Your task to perform on an android device: change the clock display to show seconds Image 0: 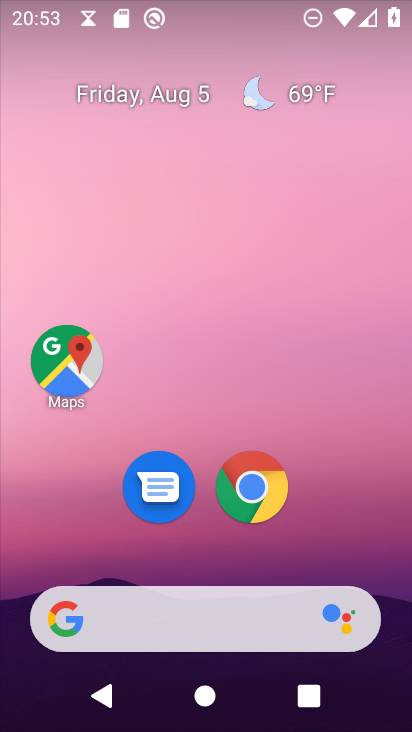
Step 0: drag from (233, 630) to (213, 65)
Your task to perform on an android device: change the clock display to show seconds Image 1: 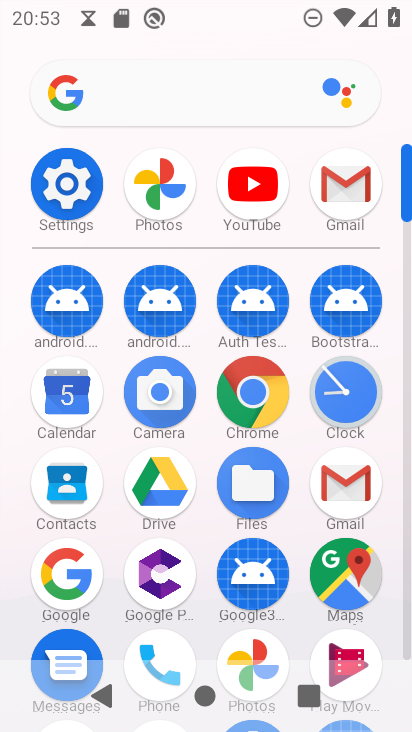
Step 1: click (347, 406)
Your task to perform on an android device: change the clock display to show seconds Image 2: 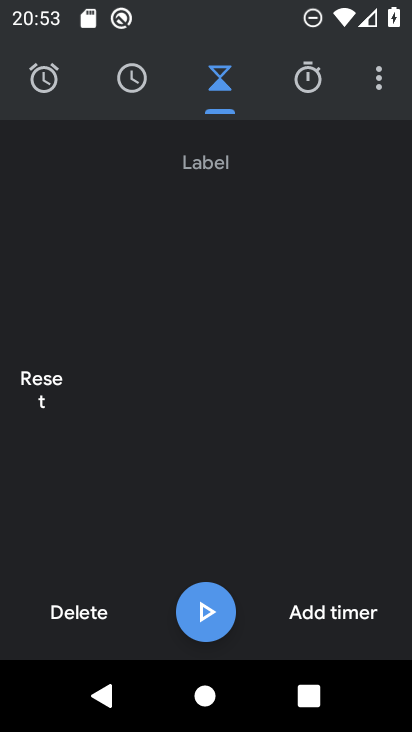
Step 2: click (380, 83)
Your task to perform on an android device: change the clock display to show seconds Image 3: 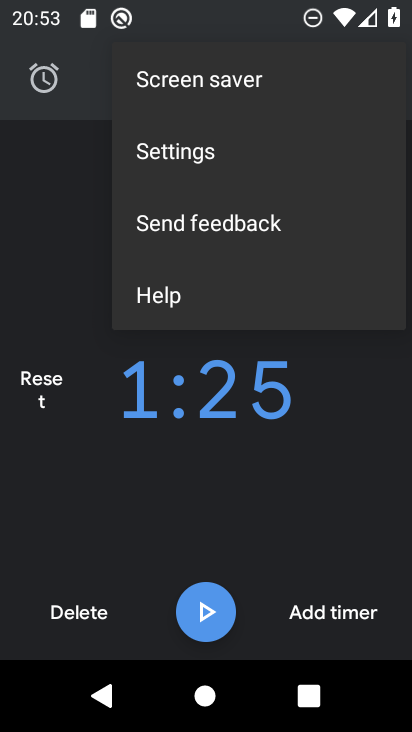
Step 3: click (190, 157)
Your task to perform on an android device: change the clock display to show seconds Image 4: 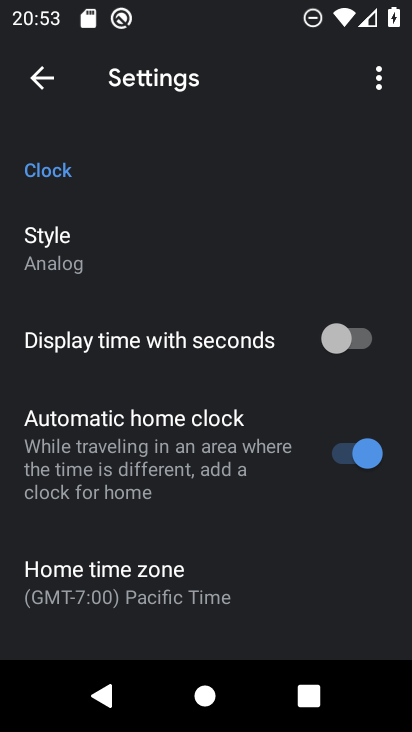
Step 4: click (356, 336)
Your task to perform on an android device: change the clock display to show seconds Image 5: 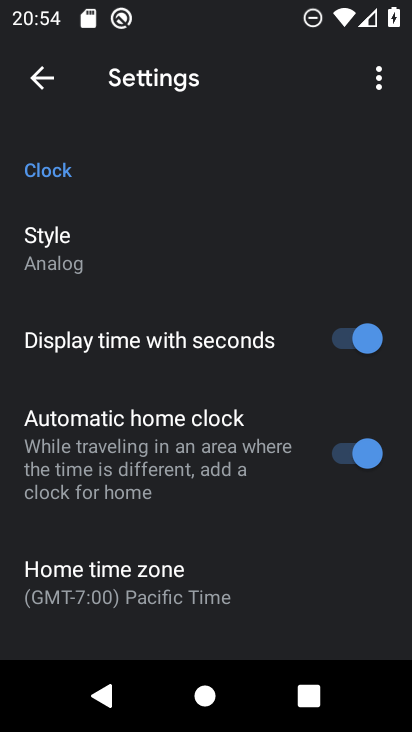
Step 5: task complete